Your task to perform on an android device: open wifi settings Image 0: 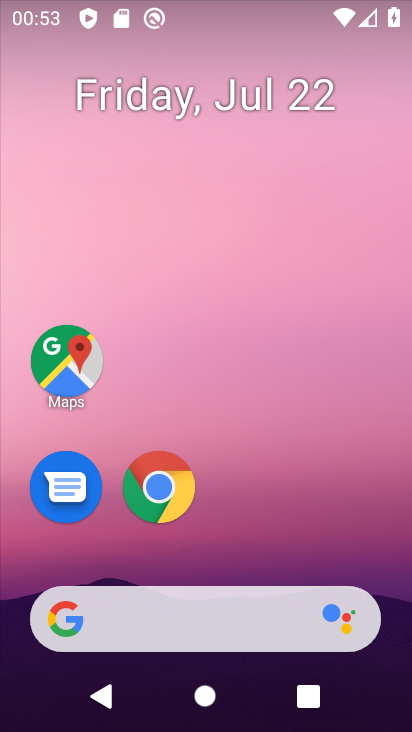
Step 0: drag from (146, 17) to (217, 664)
Your task to perform on an android device: open wifi settings Image 1: 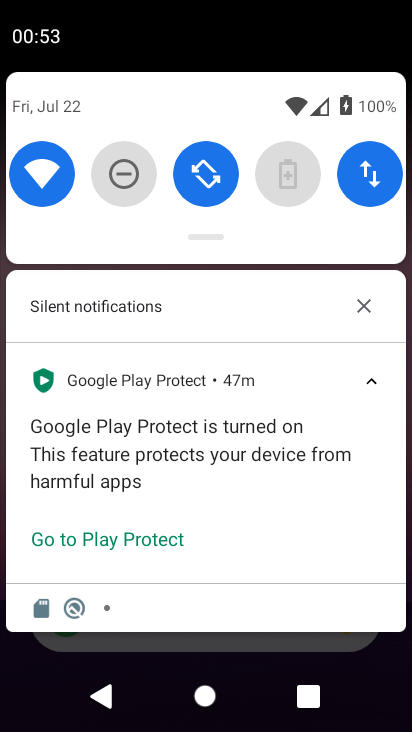
Step 1: click (41, 170)
Your task to perform on an android device: open wifi settings Image 2: 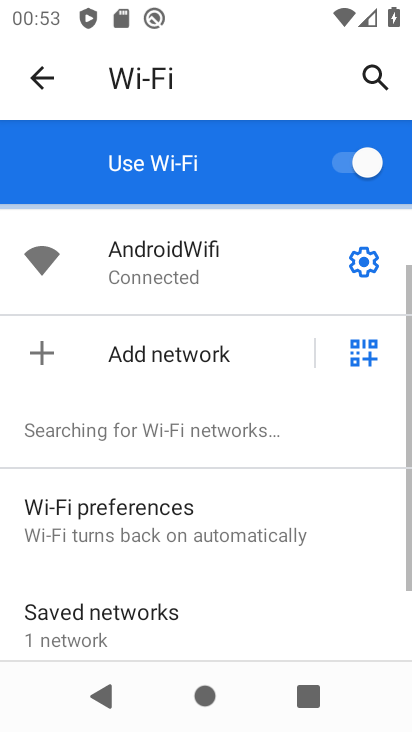
Step 2: task complete